Your task to perform on an android device: search for starred emails in the gmail app Image 0: 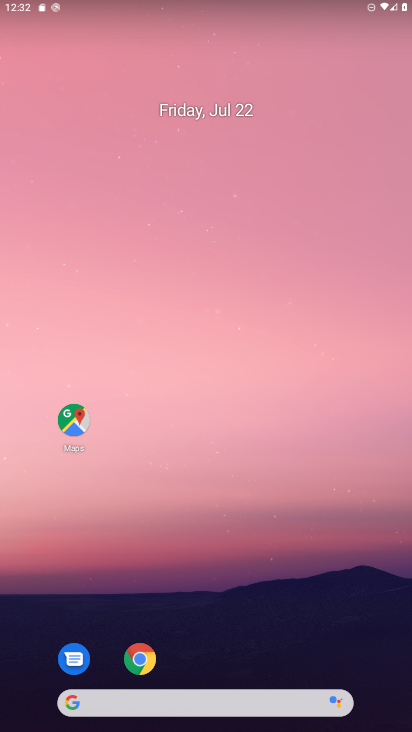
Step 0: drag from (282, 703) to (136, 148)
Your task to perform on an android device: search for starred emails in the gmail app Image 1: 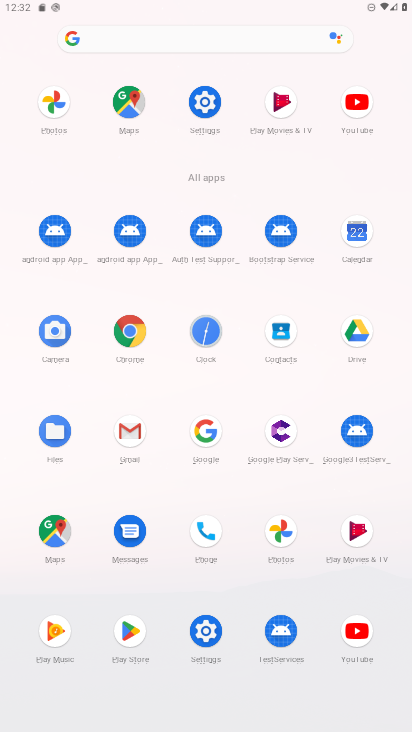
Step 1: click (143, 433)
Your task to perform on an android device: search for starred emails in the gmail app Image 2: 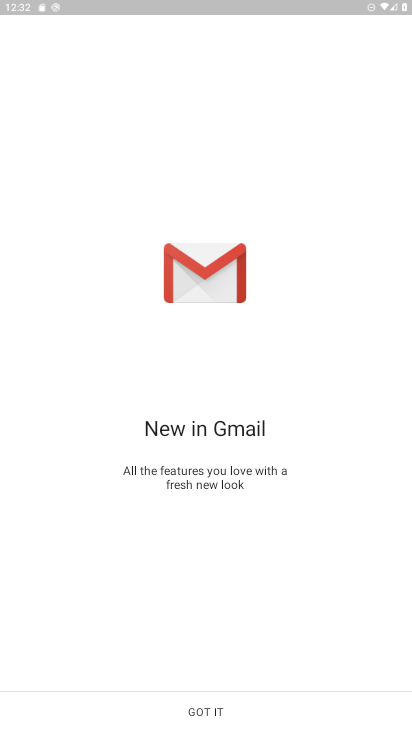
Step 2: click (222, 713)
Your task to perform on an android device: search for starred emails in the gmail app Image 3: 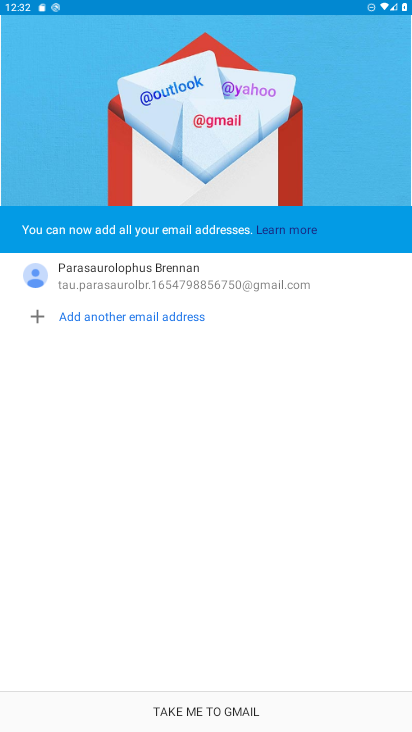
Step 3: click (213, 710)
Your task to perform on an android device: search for starred emails in the gmail app Image 4: 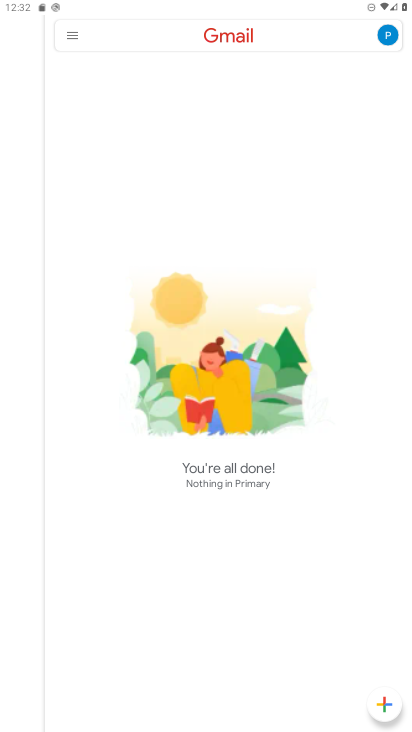
Step 4: click (78, 41)
Your task to perform on an android device: search for starred emails in the gmail app Image 5: 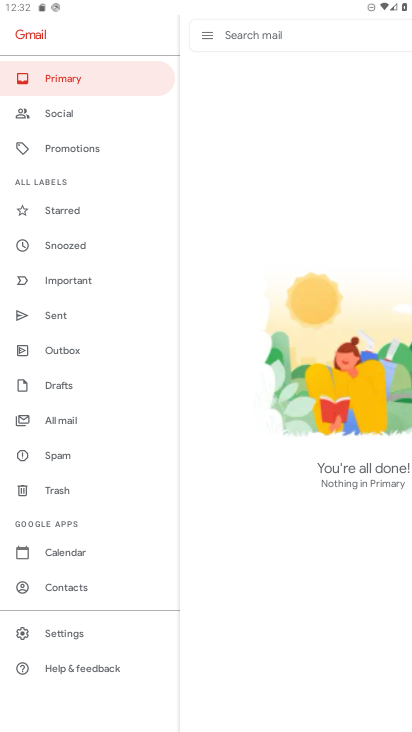
Step 5: click (59, 210)
Your task to perform on an android device: search for starred emails in the gmail app Image 6: 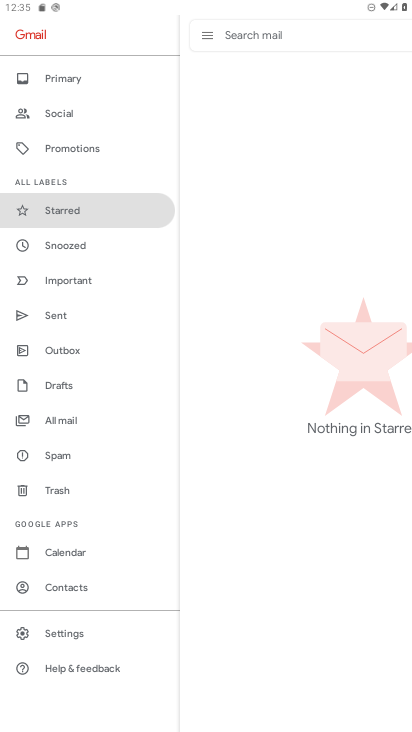
Step 6: task complete